Your task to perform on an android device: Go to sound settings Image 0: 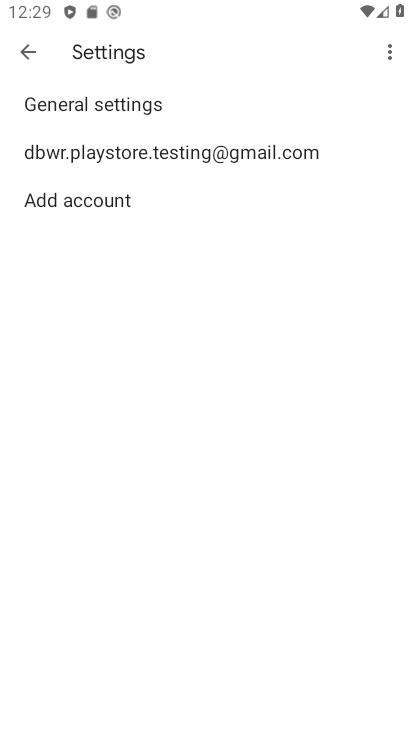
Step 0: press home button
Your task to perform on an android device: Go to sound settings Image 1: 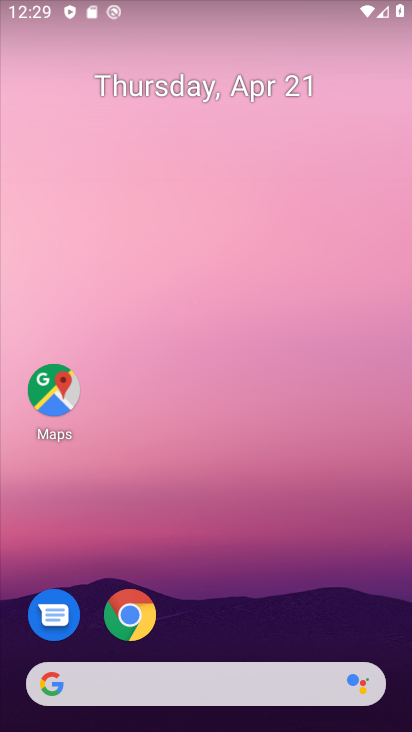
Step 1: drag from (317, 582) to (298, 49)
Your task to perform on an android device: Go to sound settings Image 2: 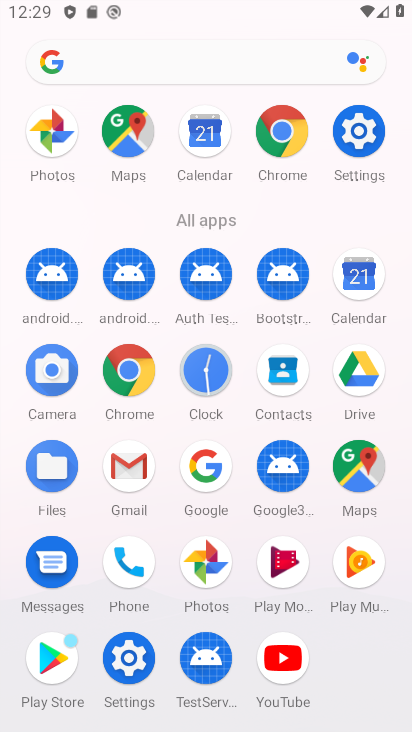
Step 2: click (361, 116)
Your task to perform on an android device: Go to sound settings Image 3: 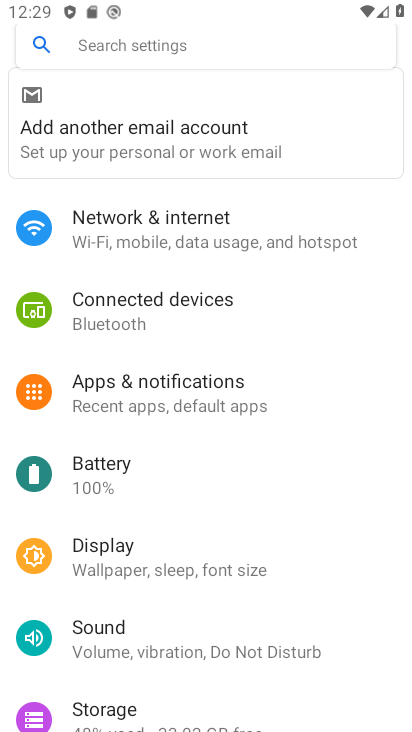
Step 3: click (144, 625)
Your task to perform on an android device: Go to sound settings Image 4: 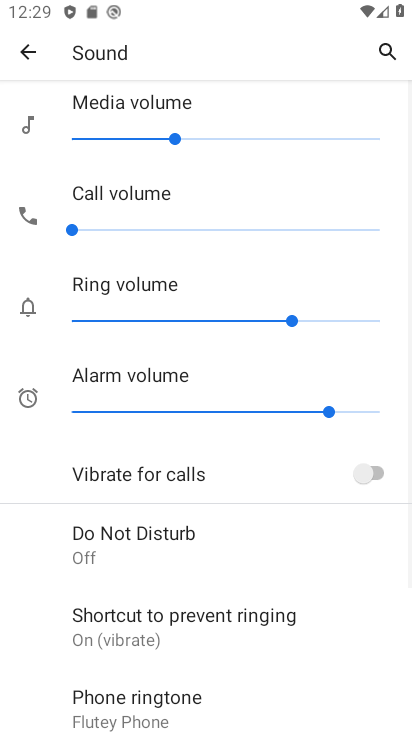
Step 4: task complete